Your task to perform on an android device: turn on translation in the chrome app Image 0: 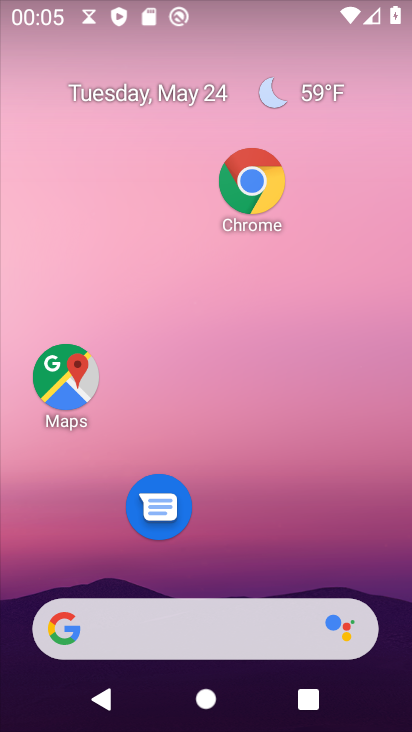
Step 0: drag from (289, 583) to (312, 273)
Your task to perform on an android device: turn on translation in the chrome app Image 1: 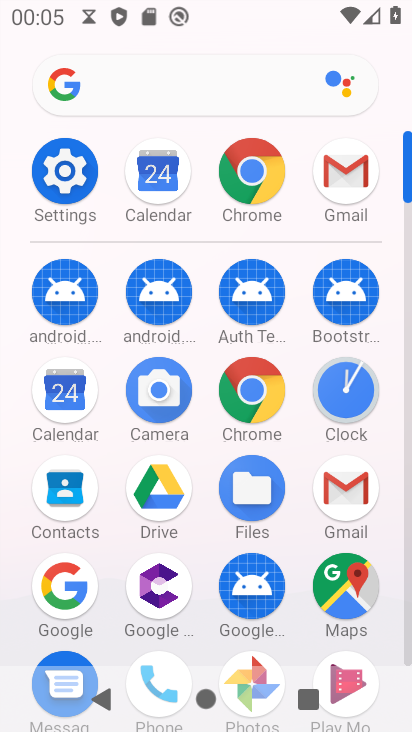
Step 1: click (242, 388)
Your task to perform on an android device: turn on translation in the chrome app Image 2: 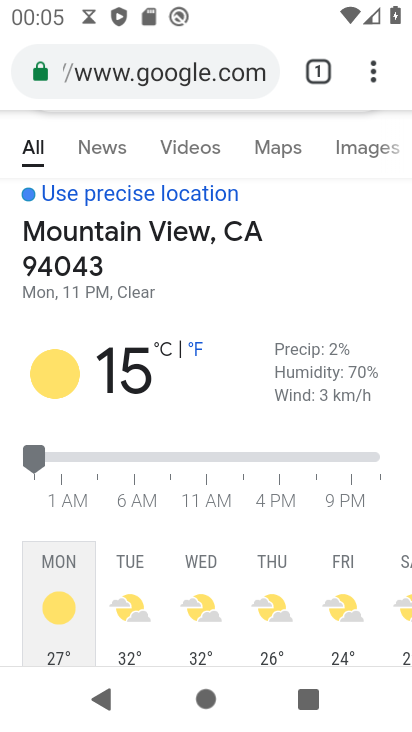
Step 2: click (379, 70)
Your task to perform on an android device: turn on translation in the chrome app Image 3: 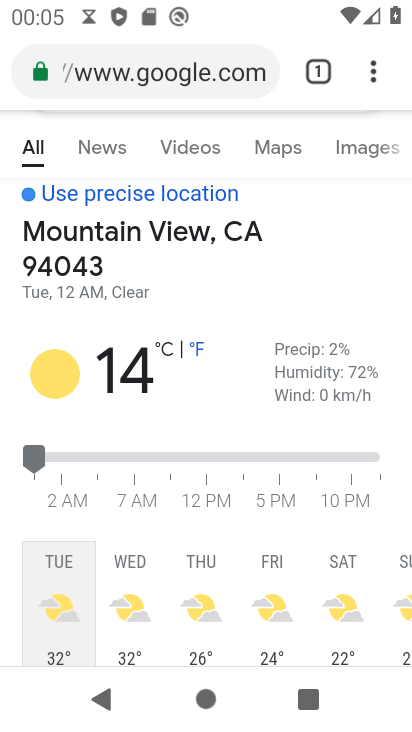
Step 3: click (381, 65)
Your task to perform on an android device: turn on translation in the chrome app Image 4: 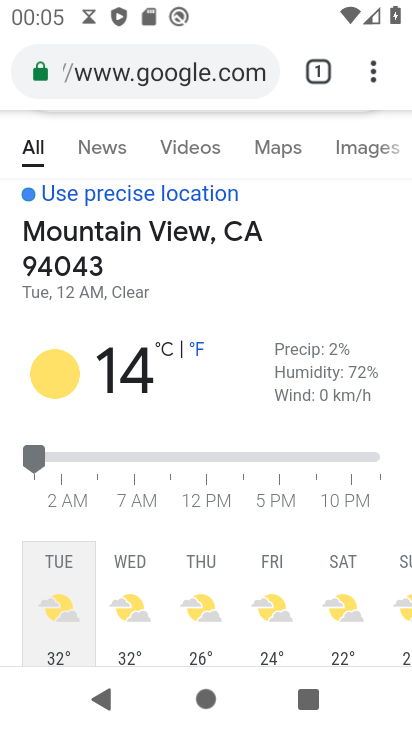
Step 4: click (375, 65)
Your task to perform on an android device: turn on translation in the chrome app Image 5: 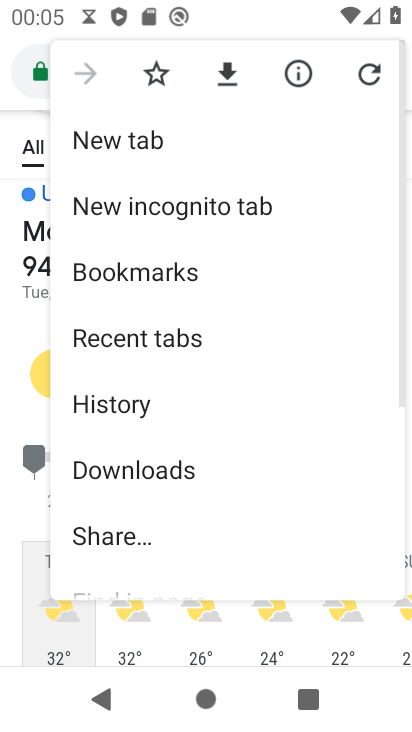
Step 5: drag from (222, 549) to (220, 199)
Your task to perform on an android device: turn on translation in the chrome app Image 6: 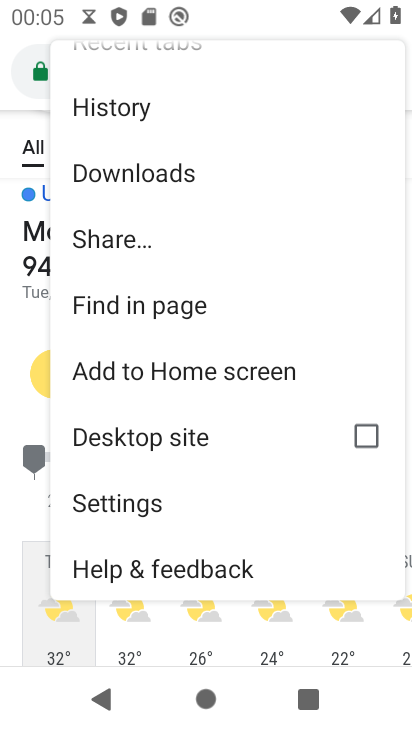
Step 6: click (165, 515)
Your task to perform on an android device: turn on translation in the chrome app Image 7: 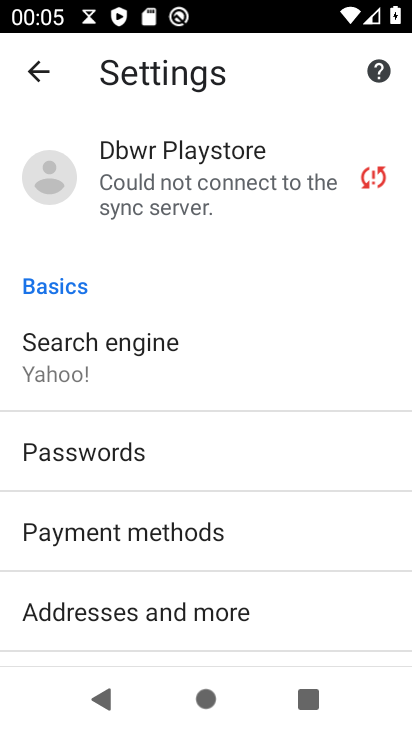
Step 7: drag from (264, 584) to (278, 269)
Your task to perform on an android device: turn on translation in the chrome app Image 8: 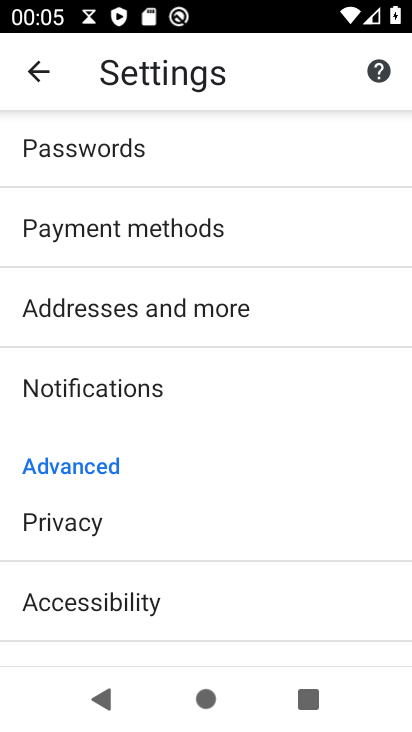
Step 8: drag from (156, 564) to (241, 279)
Your task to perform on an android device: turn on translation in the chrome app Image 9: 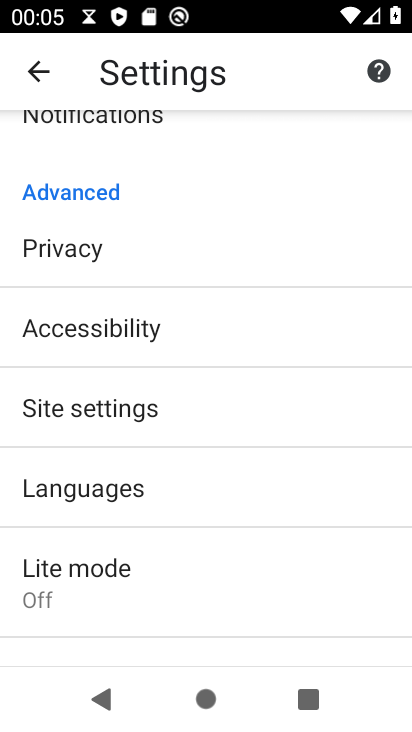
Step 9: click (136, 486)
Your task to perform on an android device: turn on translation in the chrome app Image 10: 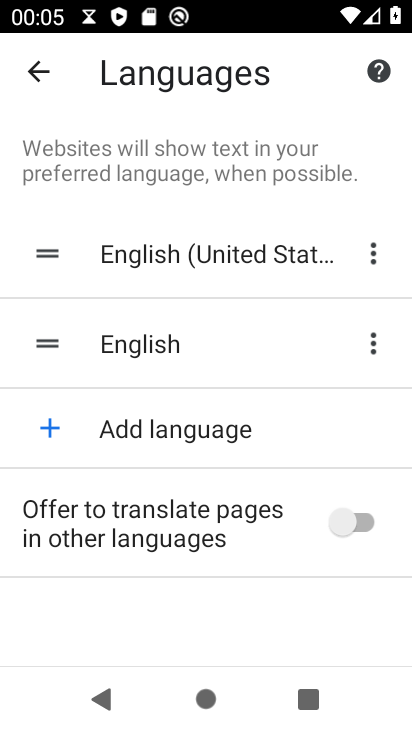
Step 10: click (343, 516)
Your task to perform on an android device: turn on translation in the chrome app Image 11: 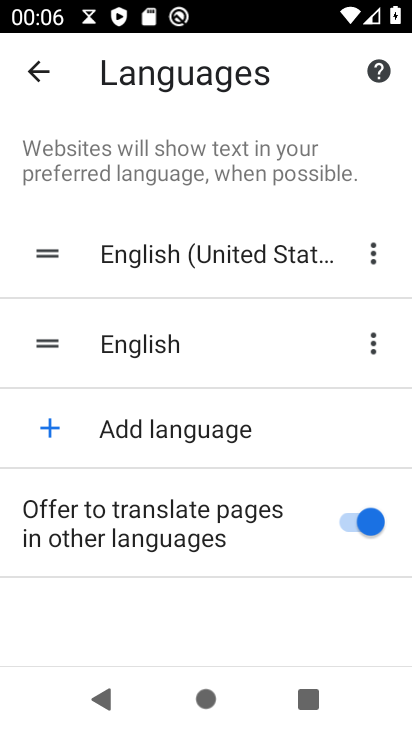
Step 11: task complete